Your task to perform on an android device: Go to Maps Image 0: 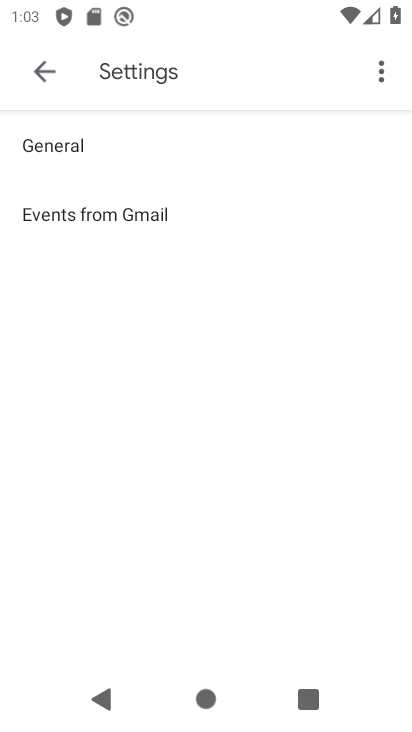
Step 0: press home button
Your task to perform on an android device: Go to Maps Image 1: 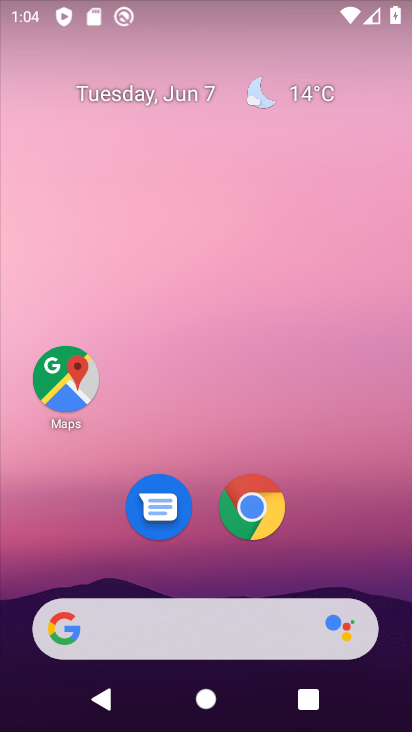
Step 1: click (66, 377)
Your task to perform on an android device: Go to Maps Image 2: 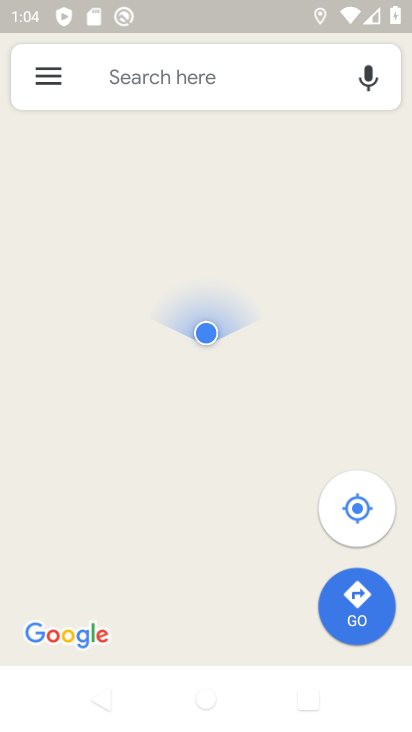
Step 2: task complete